Your task to perform on an android device: toggle show notifications on the lock screen Image 0: 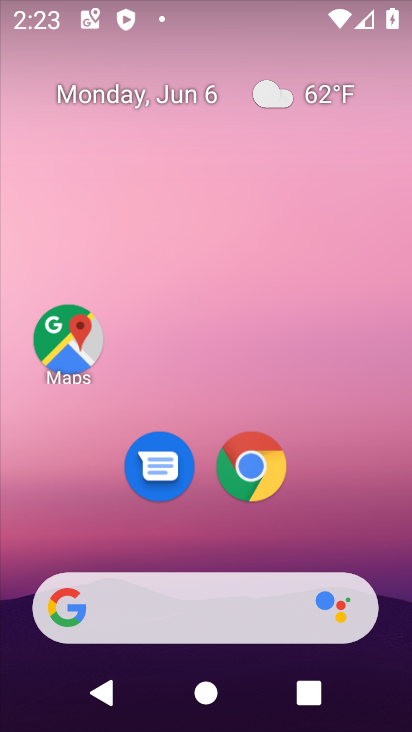
Step 0: click (165, 135)
Your task to perform on an android device: toggle show notifications on the lock screen Image 1: 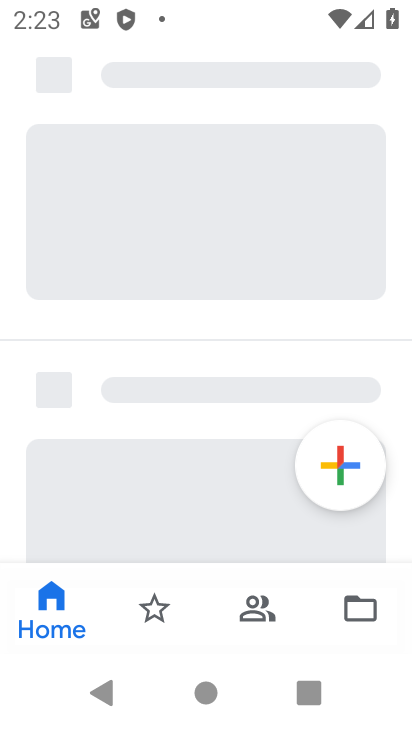
Step 1: press back button
Your task to perform on an android device: toggle show notifications on the lock screen Image 2: 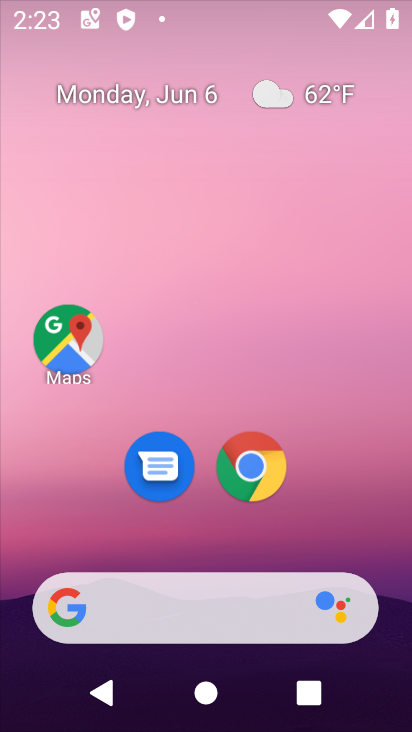
Step 2: press home button
Your task to perform on an android device: toggle show notifications on the lock screen Image 3: 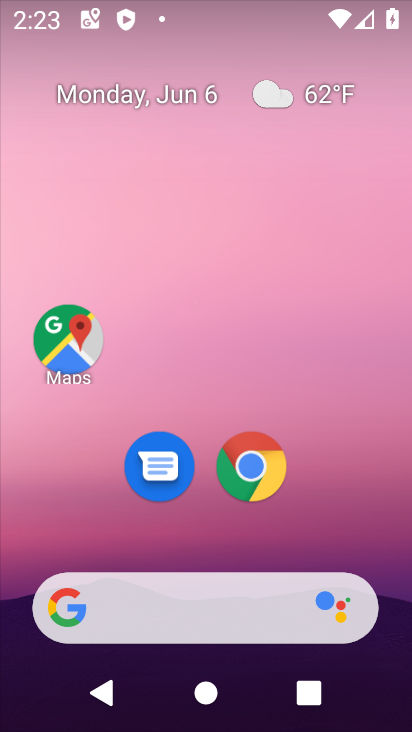
Step 3: drag from (279, 670) to (193, 2)
Your task to perform on an android device: toggle show notifications on the lock screen Image 4: 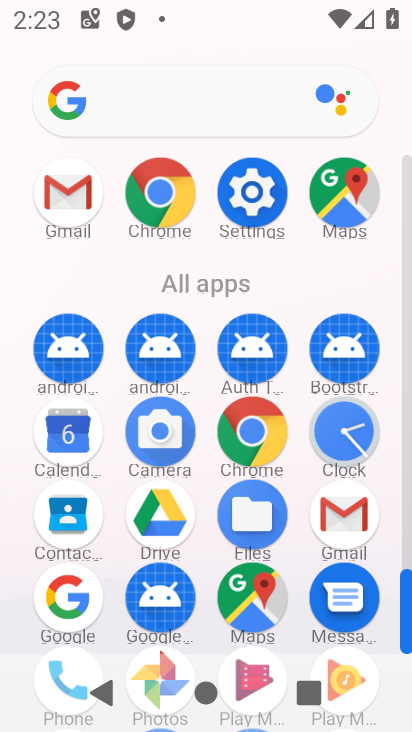
Step 4: click (247, 196)
Your task to perform on an android device: toggle show notifications on the lock screen Image 5: 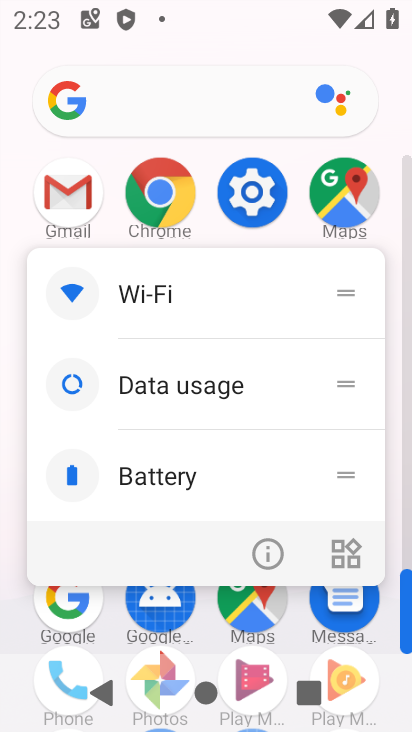
Step 5: click (248, 199)
Your task to perform on an android device: toggle show notifications on the lock screen Image 6: 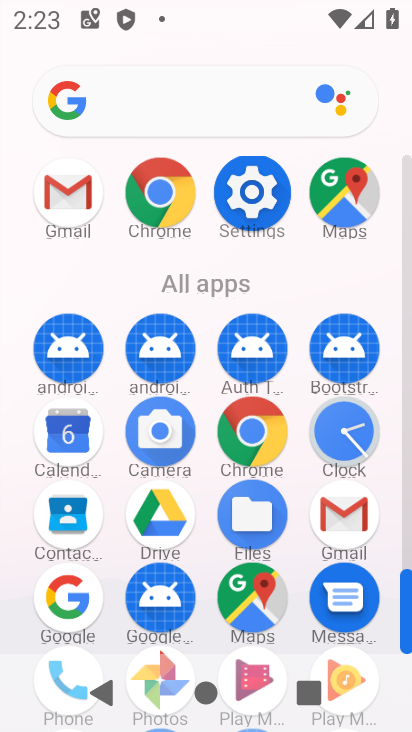
Step 6: click (251, 206)
Your task to perform on an android device: toggle show notifications on the lock screen Image 7: 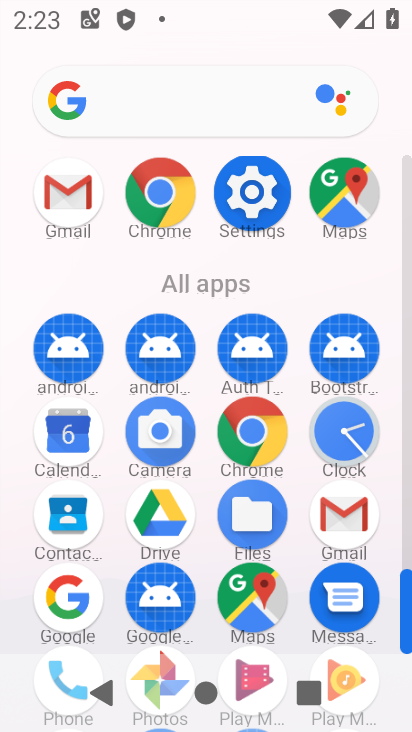
Step 7: click (251, 206)
Your task to perform on an android device: toggle show notifications on the lock screen Image 8: 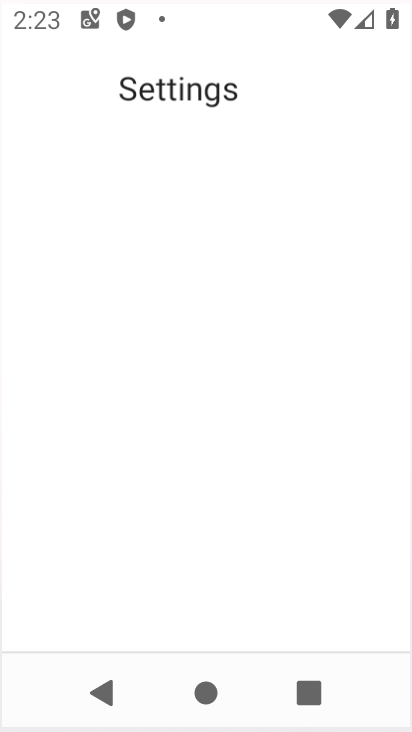
Step 8: click (275, 189)
Your task to perform on an android device: toggle show notifications on the lock screen Image 9: 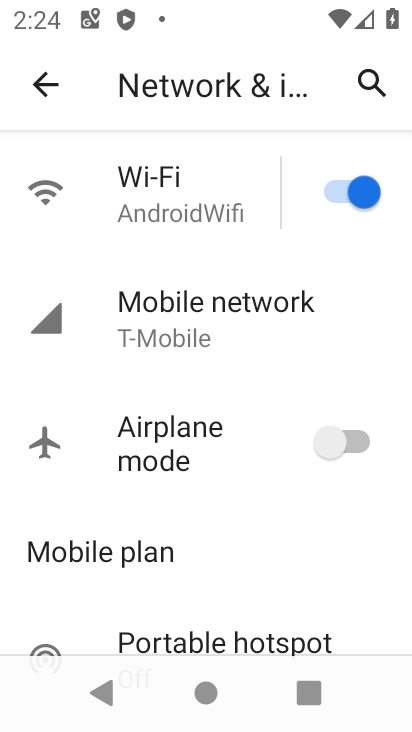
Step 9: click (42, 79)
Your task to perform on an android device: toggle show notifications on the lock screen Image 10: 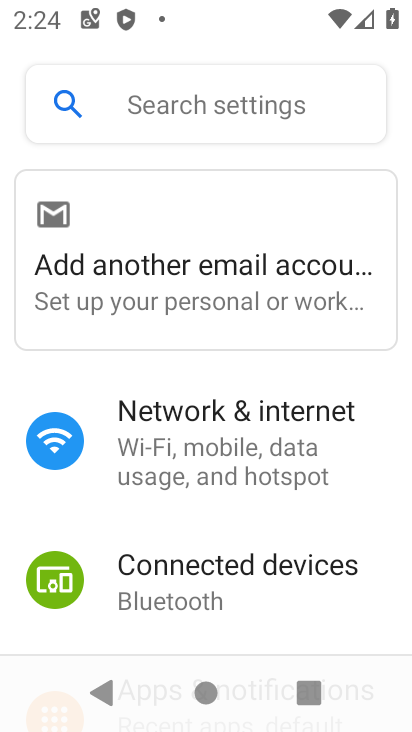
Step 10: drag from (231, 497) to (201, 193)
Your task to perform on an android device: toggle show notifications on the lock screen Image 11: 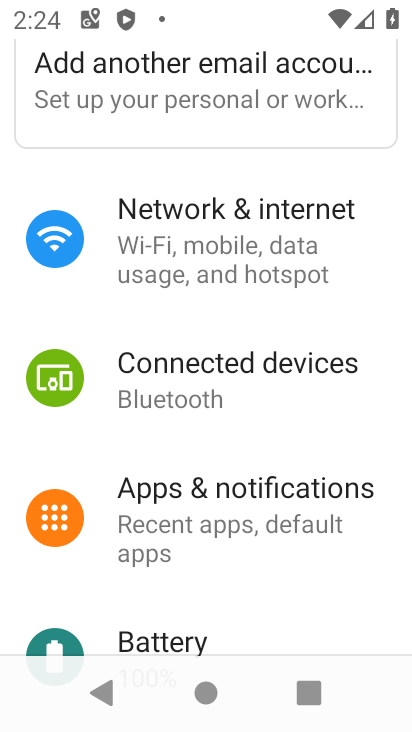
Step 11: drag from (237, 461) to (200, 60)
Your task to perform on an android device: toggle show notifications on the lock screen Image 12: 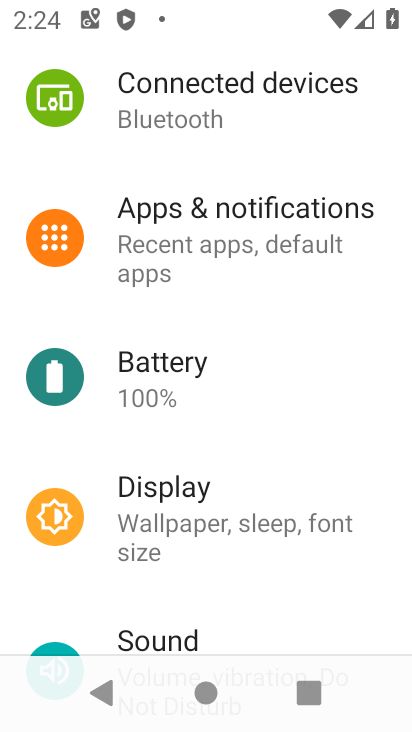
Step 12: click (225, 215)
Your task to perform on an android device: toggle show notifications on the lock screen Image 13: 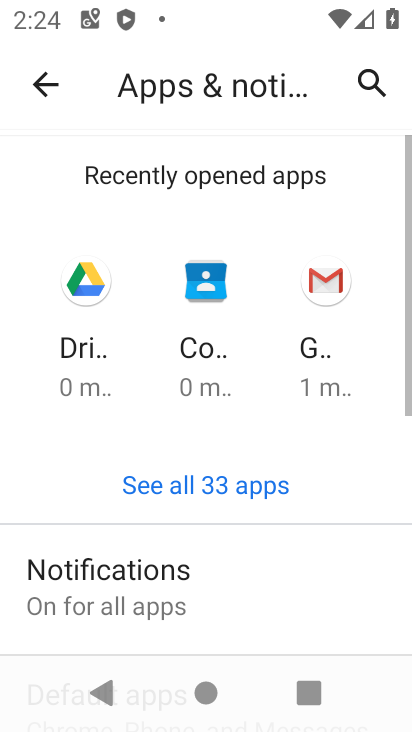
Step 13: drag from (181, 402) to (187, 138)
Your task to perform on an android device: toggle show notifications on the lock screen Image 14: 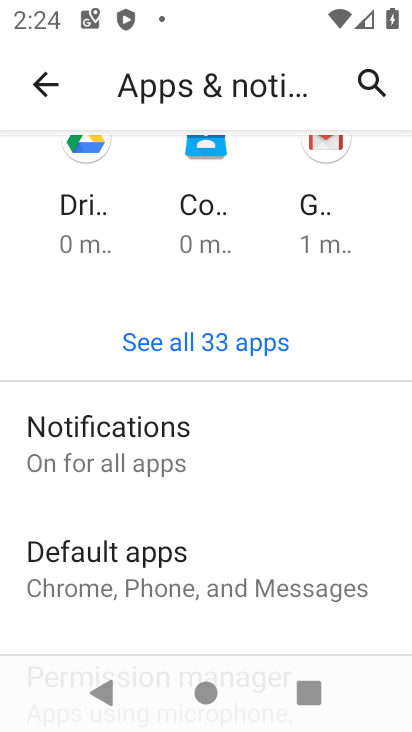
Step 14: drag from (172, 512) to (142, 290)
Your task to perform on an android device: toggle show notifications on the lock screen Image 15: 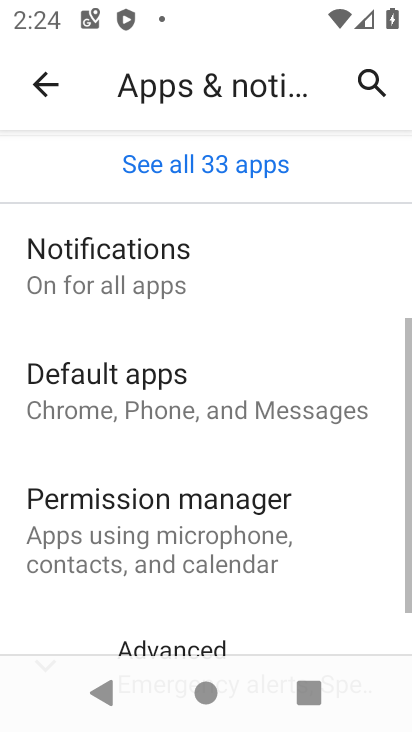
Step 15: drag from (186, 514) to (177, 250)
Your task to perform on an android device: toggle show notifications on the lock screen Image 16: 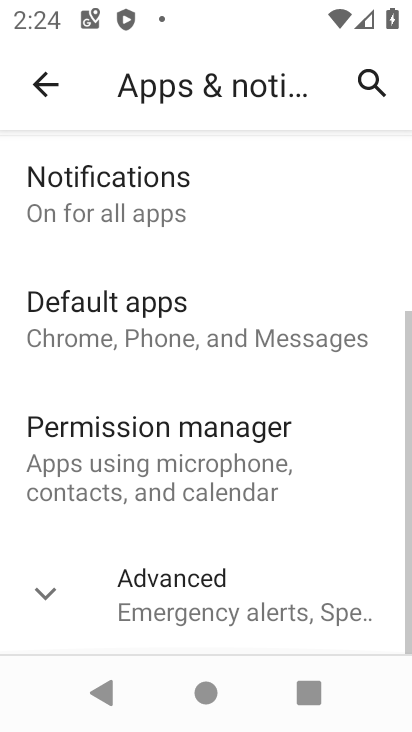
Step 16: drag from (212, 502) to (182, 222)
Your task to perform on an android device: toggle show notifications on the lock screen Image 17: 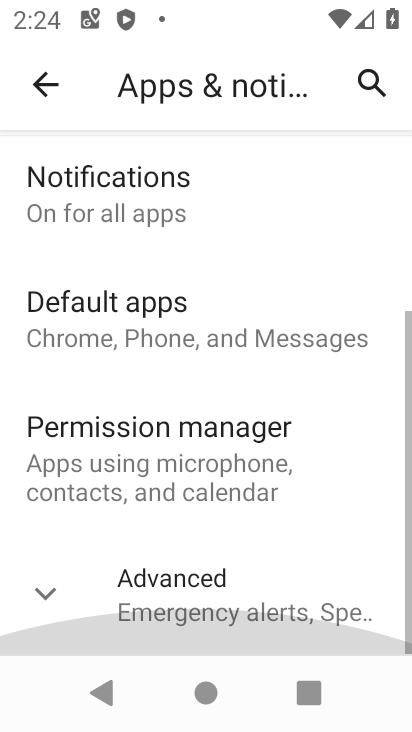
Step 17: drag from (195, 424) to (169, 159)
Your task to perform on an android device: toggle show notifications on the lock screen Image 18: 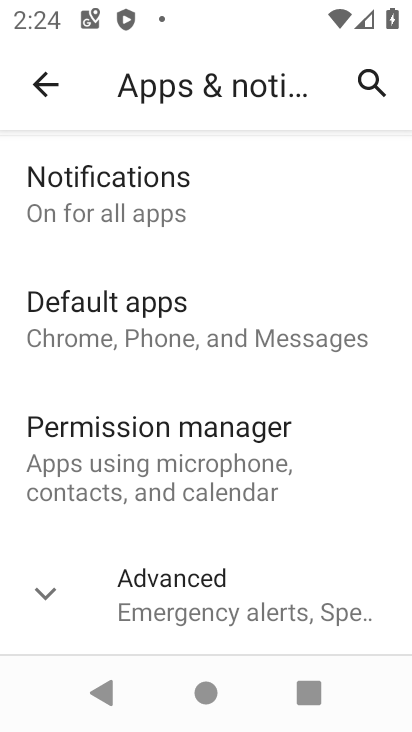
Step 18: click (99, 200)
Your task to perform on an android device: toggle show notifications on the lock screen Image 19: 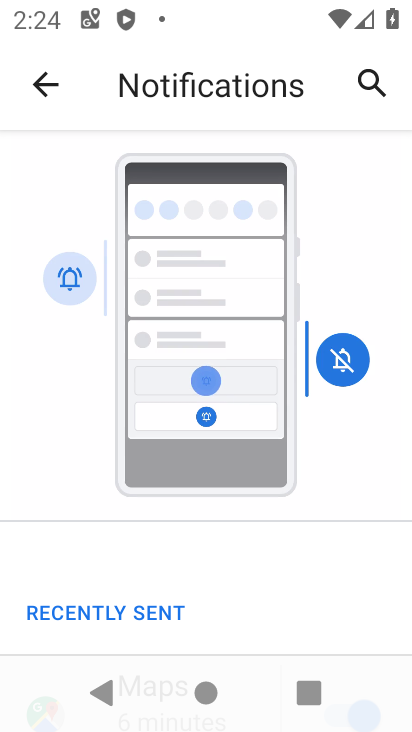
Step 19: drag from (194, 563) to (152, 154)
Your task to perform on an android device: toggle show notifications on the lock screen Image 20: 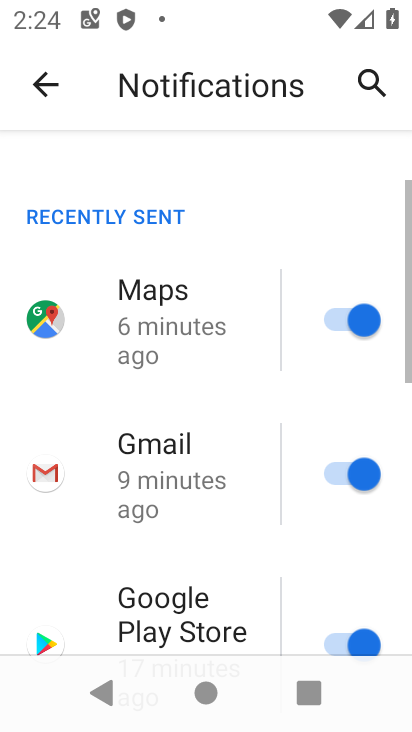
Step 20: drag from (217, 321) to (217, 169)
Your task to perform on an android device: toggle show notifications on the lock screen Image 21: 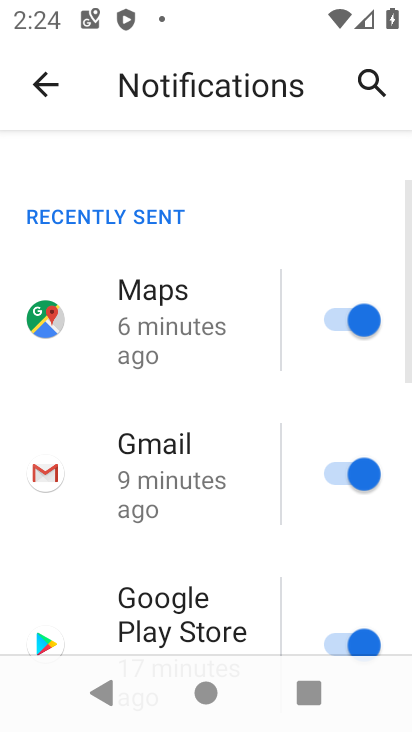
Step 21: drag from (191, 337) to (279, 120)
Your task to perform on an android device: toggle show notifications on the lock screen Image 22: 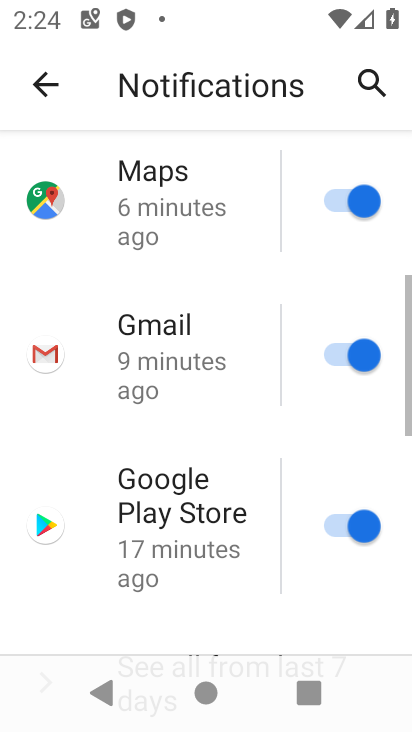
Step 22: drag from (273, 500) to (275, 153)
Your task to perform on an android device: toggle show notifications on the lock screen Image 23: 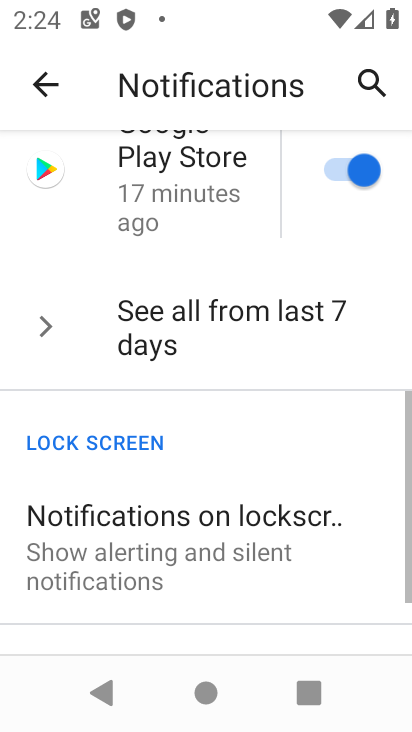
Step 23: drag from (247, 562) to (231, 260)
Your task to perform on an android device: toggle show notifications on the lock screen Image 24: 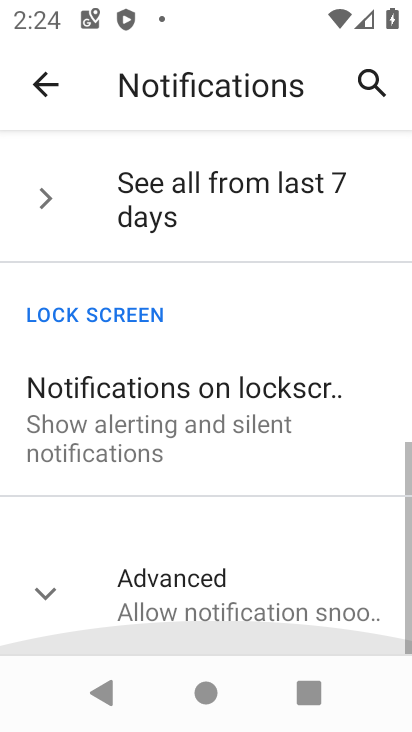
Step 24: drag from (232, 582) to (226, 210)
Your task to perform on an android device: toggle show notifications on the lock screen Image 25: 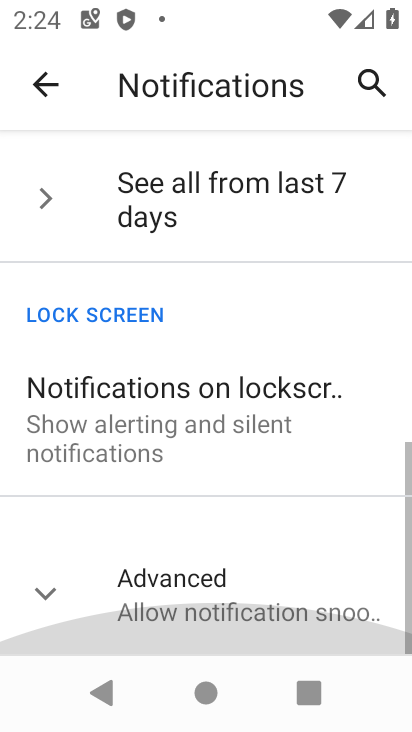
Step 25: drag from (280, 553) to (251, 227)
Your task to perform on an android device: toggle show notifications on the lock screen Image 26: 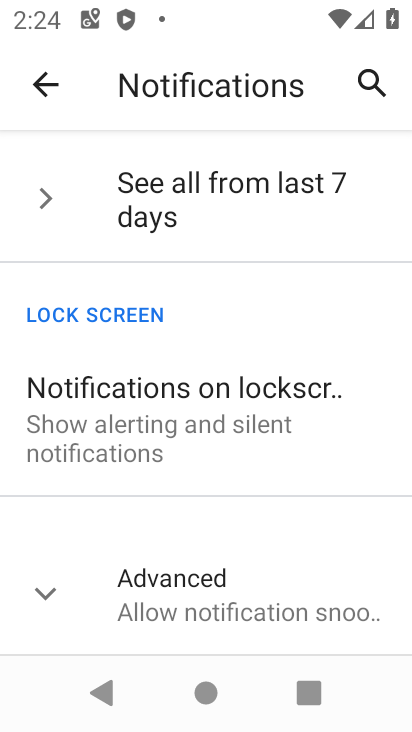
Step 26: click (153, 417)
Your task to perform on an android device: toggle show notifications on the lock screen Image 27: 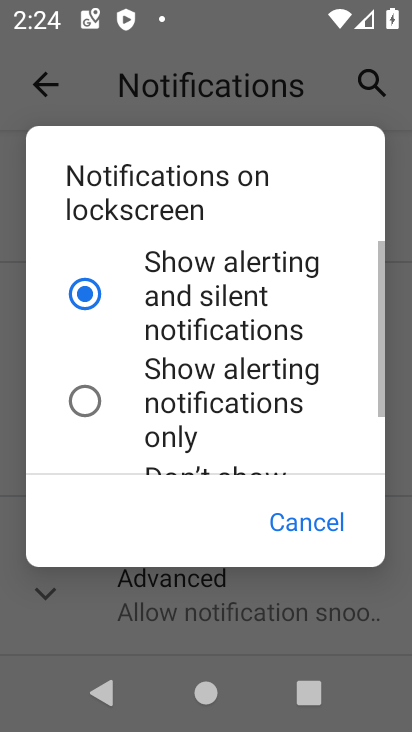
Step 27: click (299, 501)
Your task to perform on an android device: toggle show notifications on the lock screen Image 28: 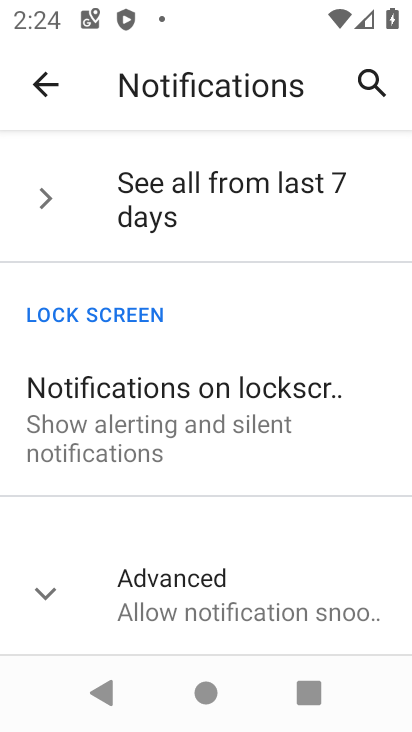
Step 28: task complete